Your task to perform on an android device: change the clock display to show seconds Image 0: 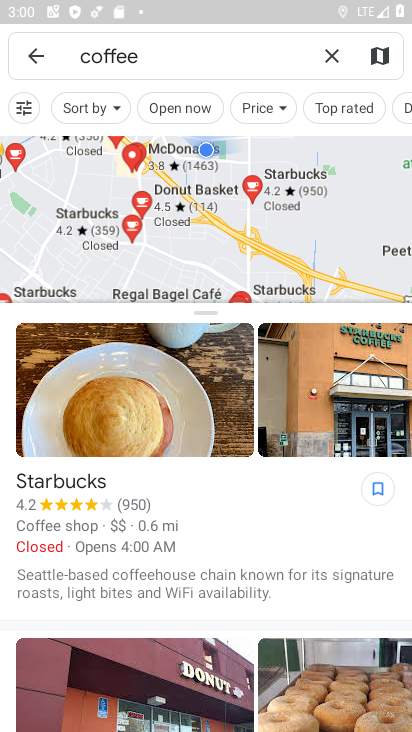
Step 0: drag from (374, 378) to (399, 305)
Your task to perform on an android device: change the clock display to show seconds Image 1: 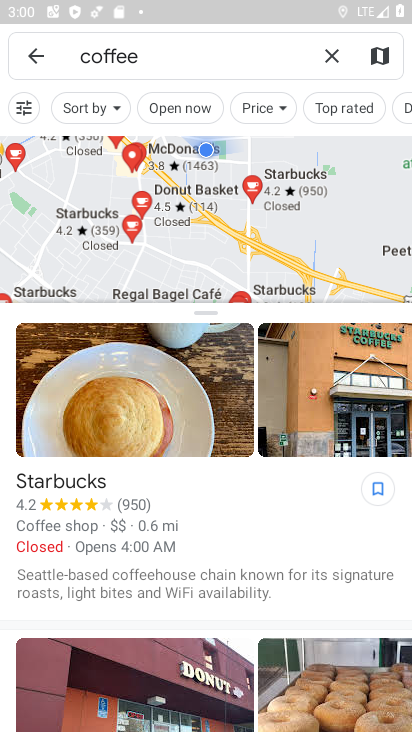
Step 1: press home button
Your task to perform on an android device: change the clock display to show seconds Image 2: 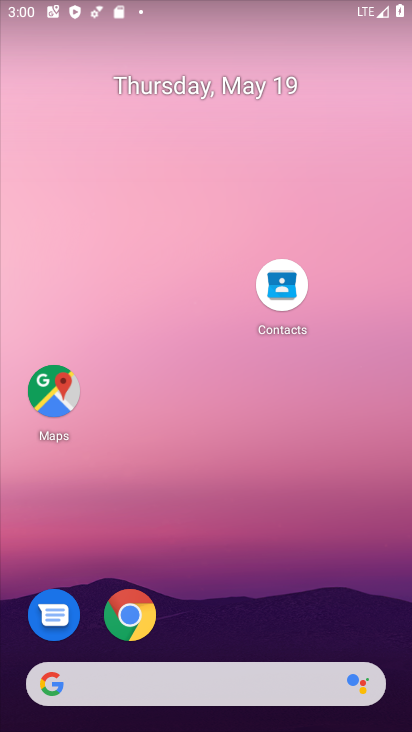
Step 2: drag from (229, 548) to (309, 232)
Your task to perform on an android device: change the clock display to show seconds Image 3: 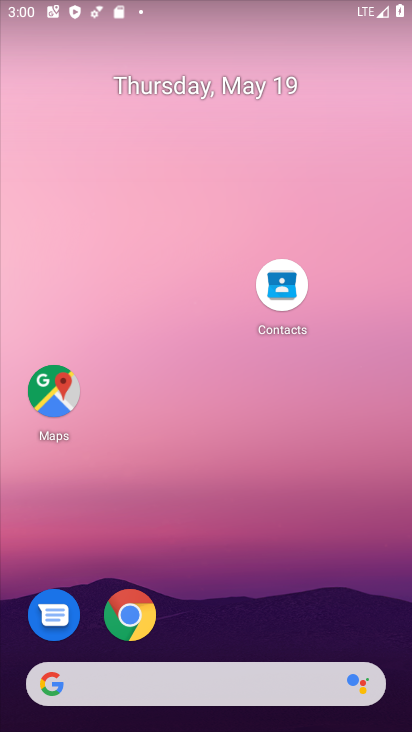
Step 3: drag from (204, 638) to (276, 341)
Your task to perform on an android device: change the clock display to show seconds Image 4: 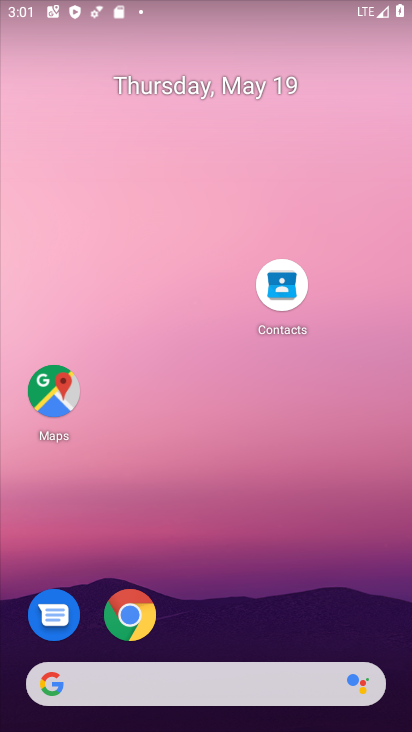
Step 4: drag from (253, 667) to (367, 284)
Your task to perform on an android device: change the clock display to show seconds Image 5: 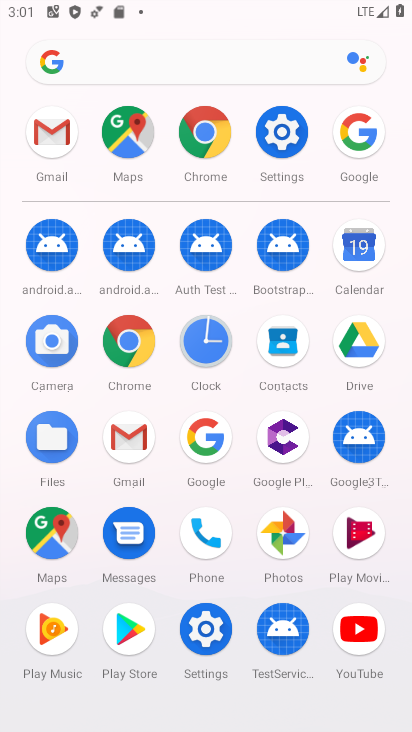
Step 5: click (219, 340)
Your task to perform on an android device: change the clock display to show seconds Image 6: 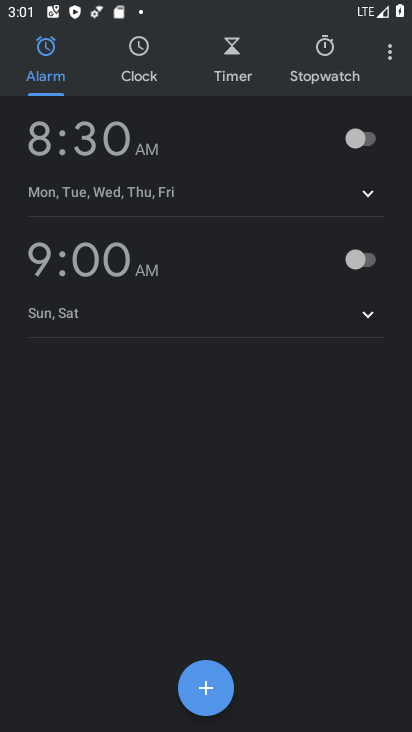
Step 6: click (387, 55)
Your task to perform on an android device: change the clock display to show seconds Image 7: 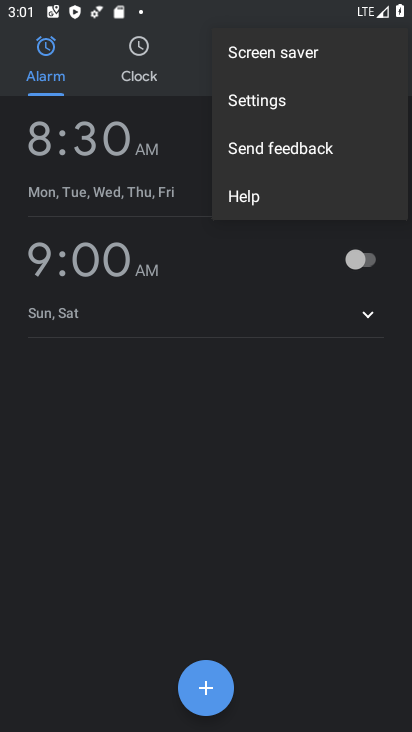
Step 7: click (264, 101)
Your task to perform on an android device: change the clock display to show seconds Image 8: 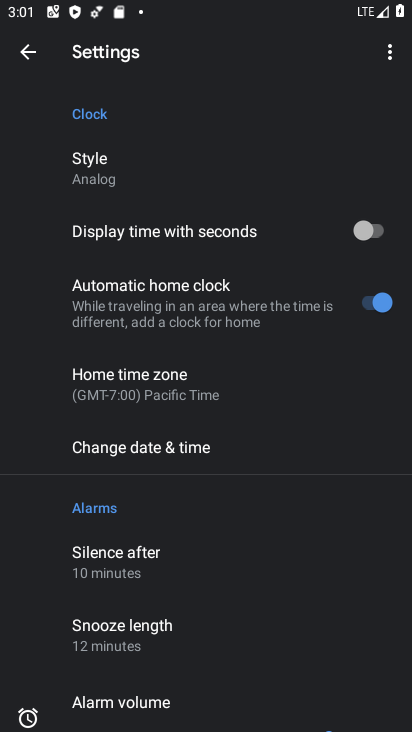
Step 8: click (258, 237)
Your task to perform on an android device: change the clock display to show seconds Image 9: 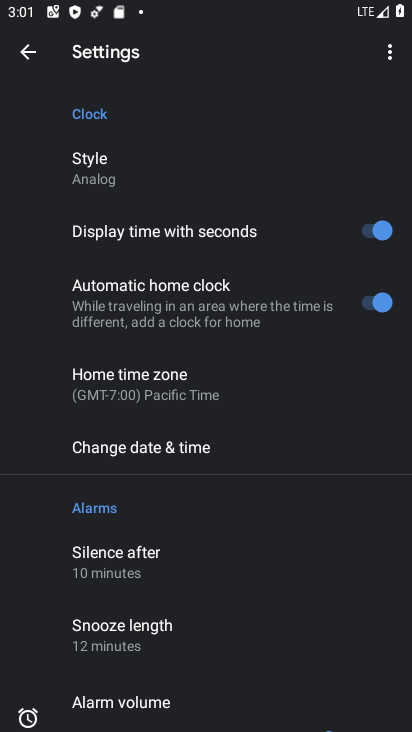
Step 9: task complete